Your task to perform on an android device: search for starred emails in the gmail app Image 0: 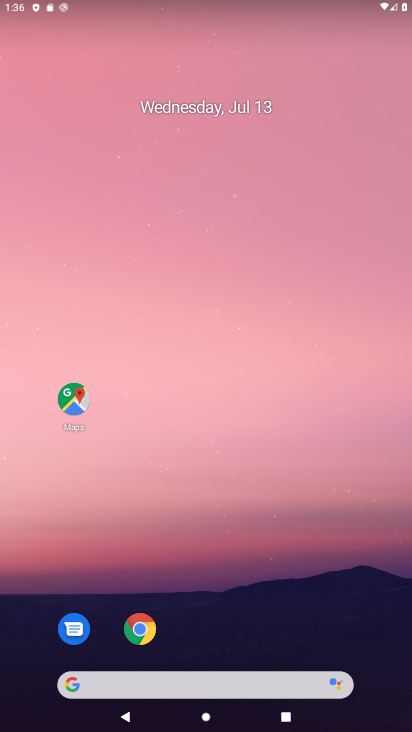
Step 0: drag from (313, 634) to (254, 77)
Your task to perform on an android device: search for starred emails in the gmail app Image 1: 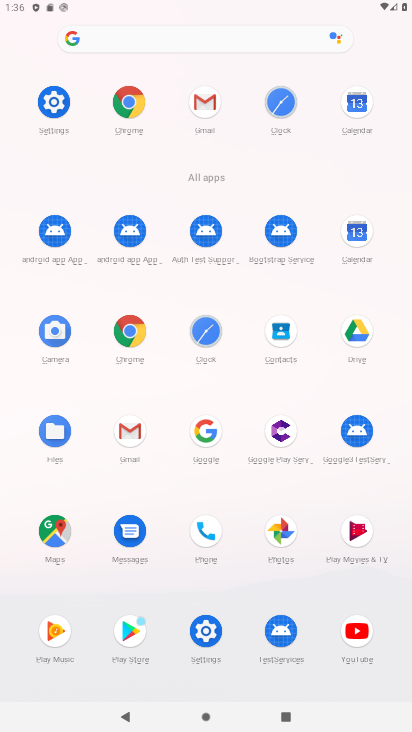
Step 1: click (213, 127)
Your task to perform on an android device: search for starred emails in the gmail app Image 2: 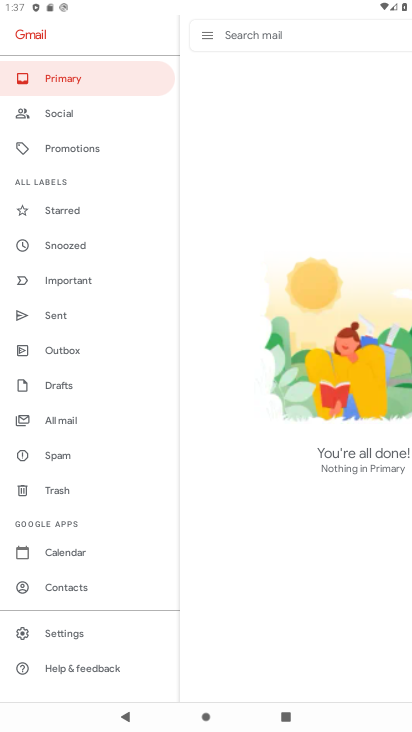
Step 2: click (84, 217)
Your task to perform on an android device: search for starred emails in the gmail app Image 3: 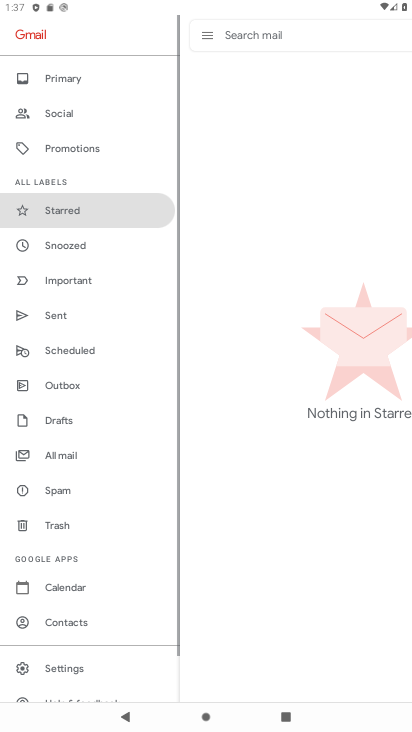
Step 3: task complete